Your task to perform on an android device: Show me the alarms in the clock app Image 0: 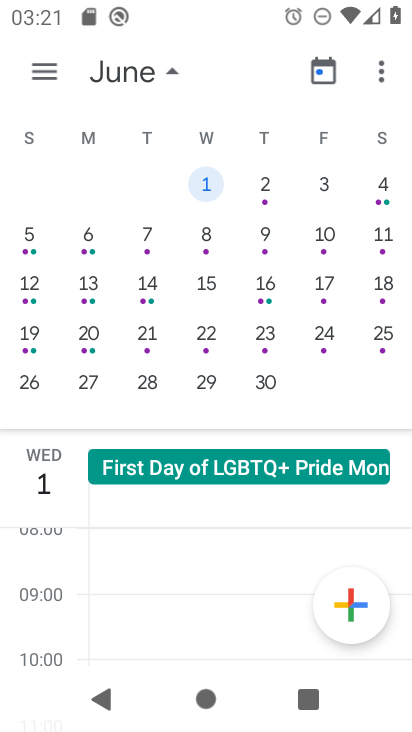
Step 0: press home button
Your task to perform on an android device: Show me the alarms in the clock app Image 1: 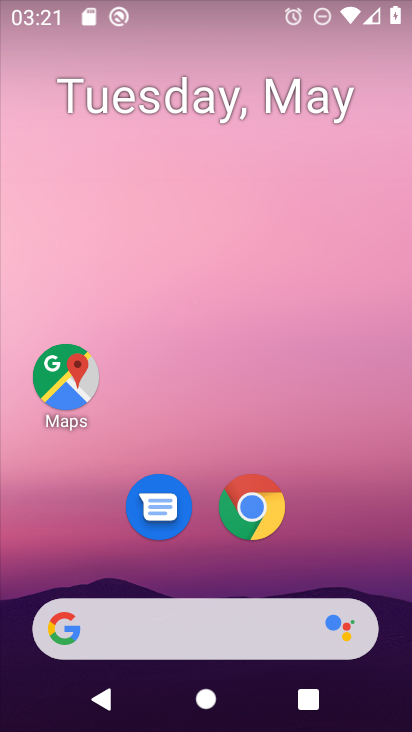
Step 1: drag from (204, 580) to (237, 205)
Your task to perform on an android device: Show me the alarms in the clock app Image 2: 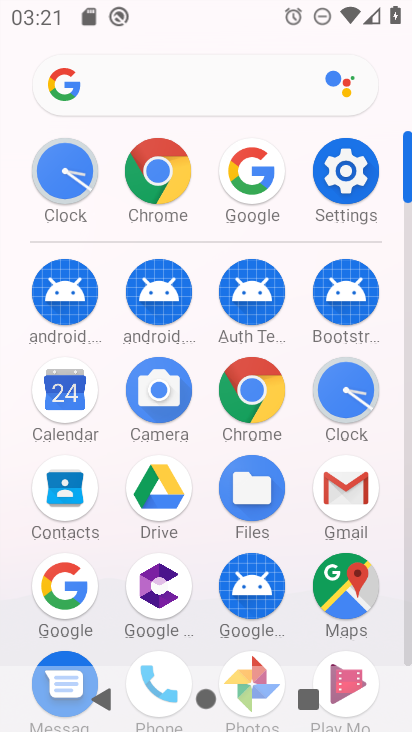
Step 2: click (337, 374)
Your task to perform on an android device: Show me the alarms in the clock app Image 3: 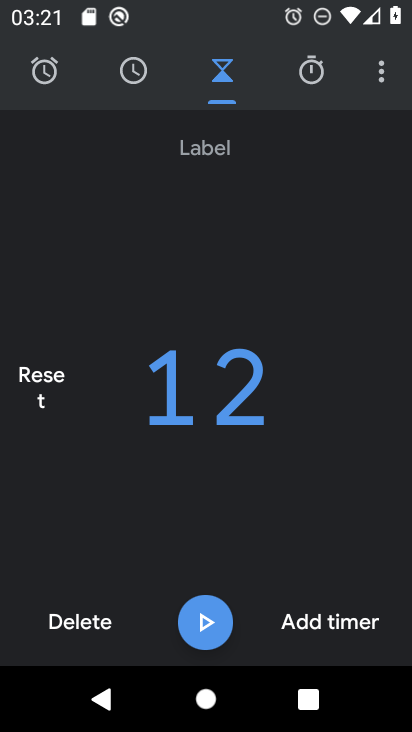
Step 3: click (55, 81)
Your task to perform on an android device: Show me the alarms in the clock app Image 4: 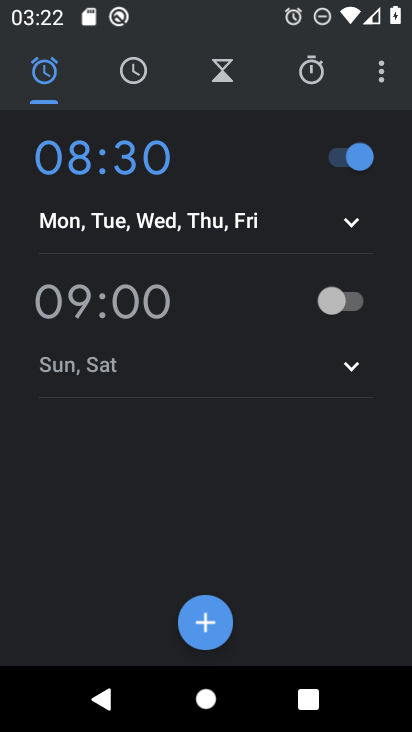
Step 4: task complete